Your task to perform on an android device: Show me the alarms in the clock app Image 0: 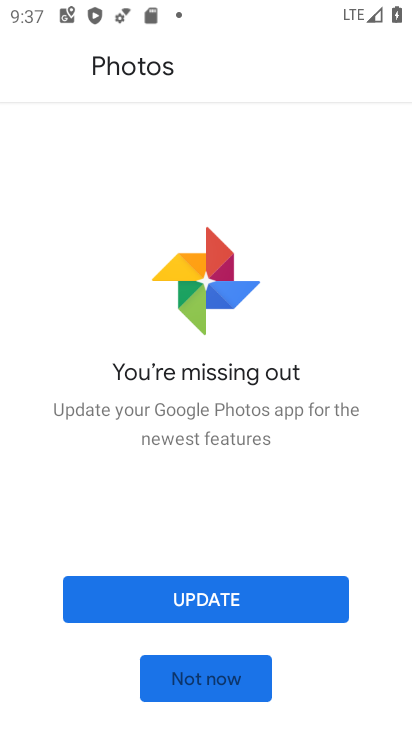
Step 0: press home button
Your task to perform on an android device: Show me the alarms in the clock app Image 1: 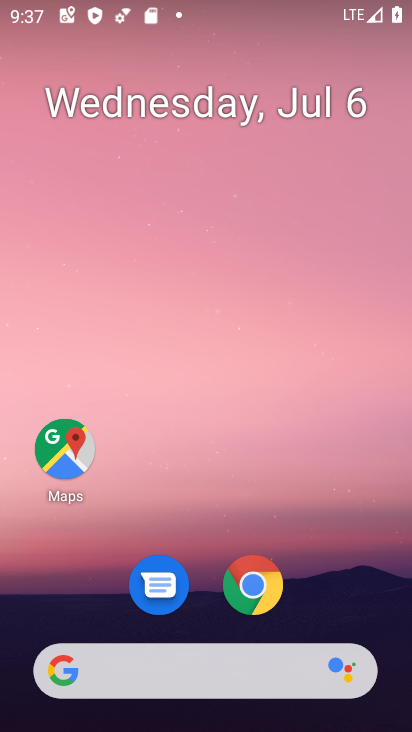
Step 1: drag from (227, 511) to (316, 6)
Your task to perform on an android device: Show me the alarms in the clock app Image 2: 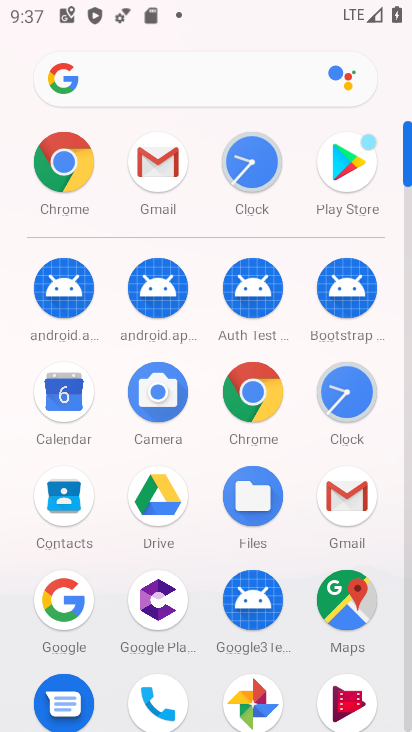
Step 2: click (357, 402)
Your task to perform on an android device: Show me the alarms in the clock app Image 3: 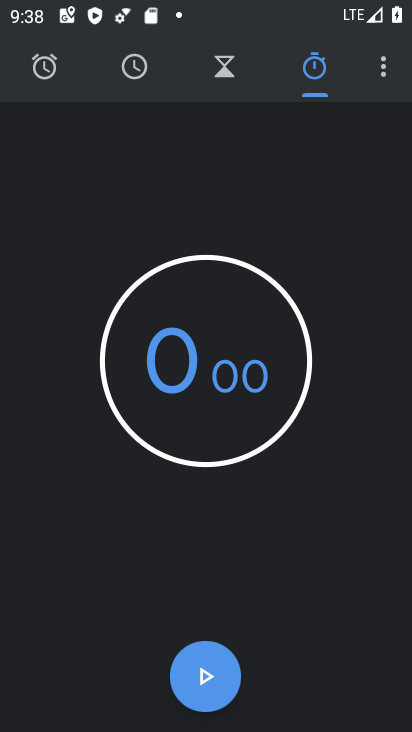
Step 3: click (46, 66)
Your task to perform on an android device: Show me the alarms in the clock app Image 4: 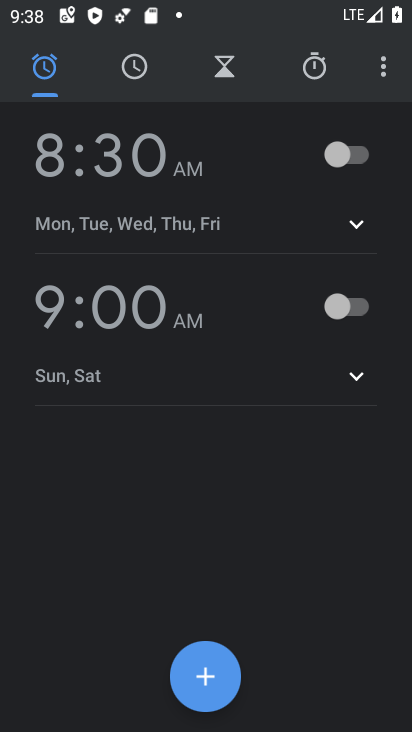
Step 4: task complete